Your task to perform on an android device: open a new tab in the chrome app Image 0: 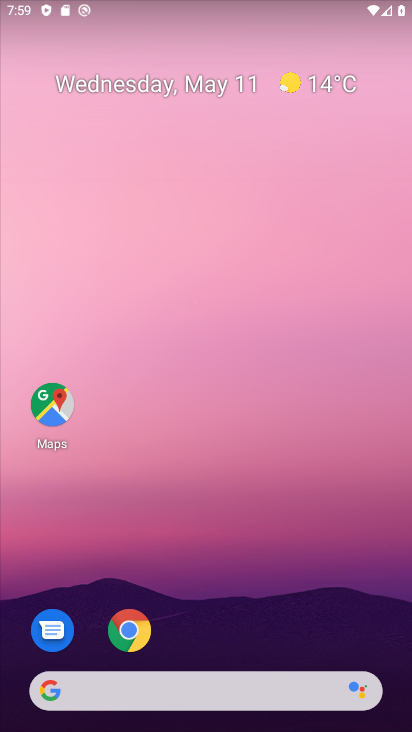
Step 0: click (124, 614)
Your task to perform on an android device: open a new tab in the chrome app Image 1: 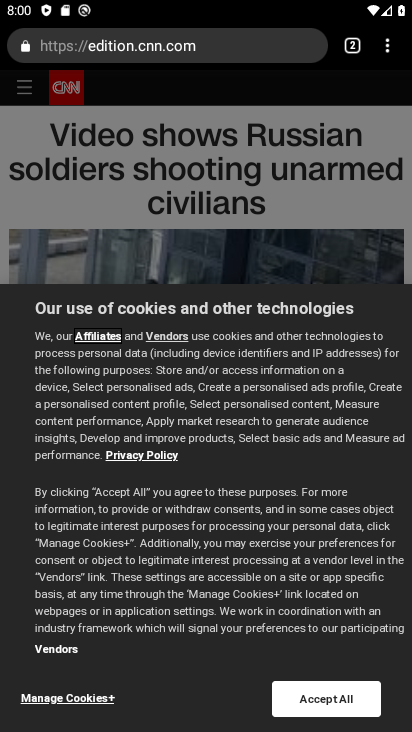
Step 1: click (354, 45)
Your task to perform on an android device: open a new tab in the chrome app Image 2: 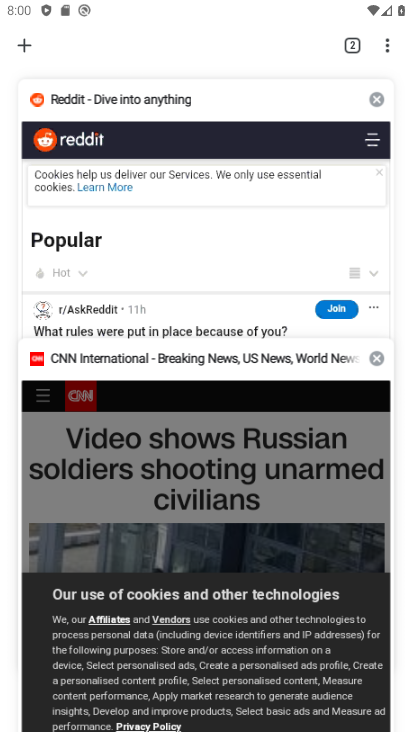
Step 2: click (21, 39)
Your task to perform on an android device: open a new tab in the chrome app Image 3: 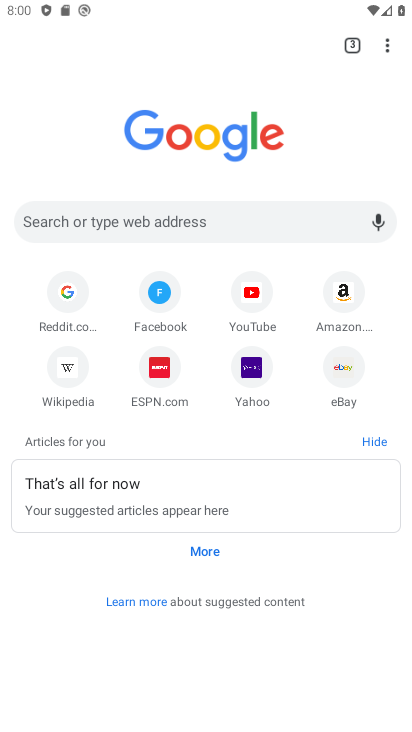
Step 3: task complete